Your task to perform on an android device: open app "ColorNote Notepad Notes" (install if not already installed) Image 0: 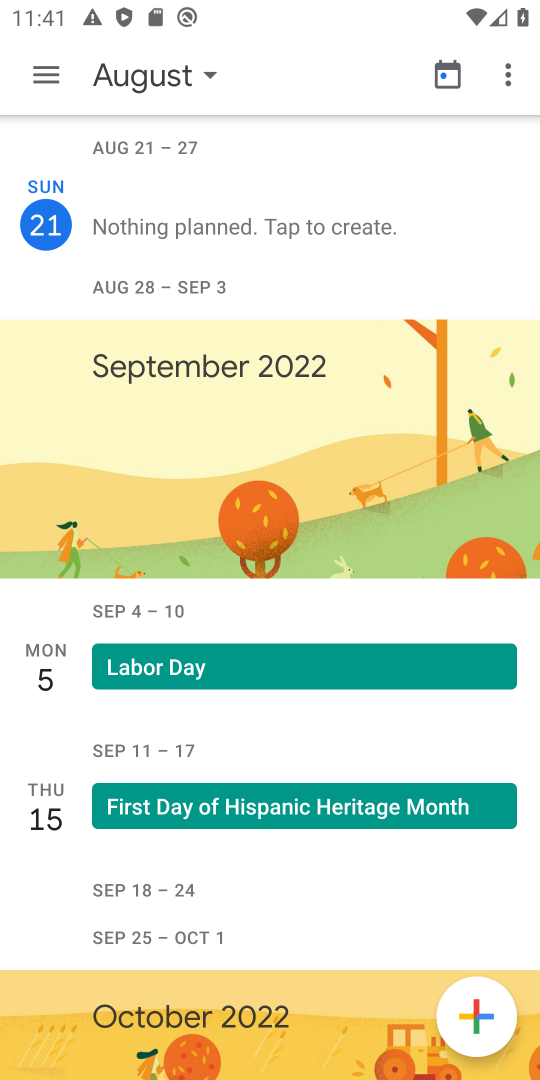
Step 0: press home button
Your task to perform on an android device: open app "ColorNote Notepad Notes" (install if not already installed) Image 1: 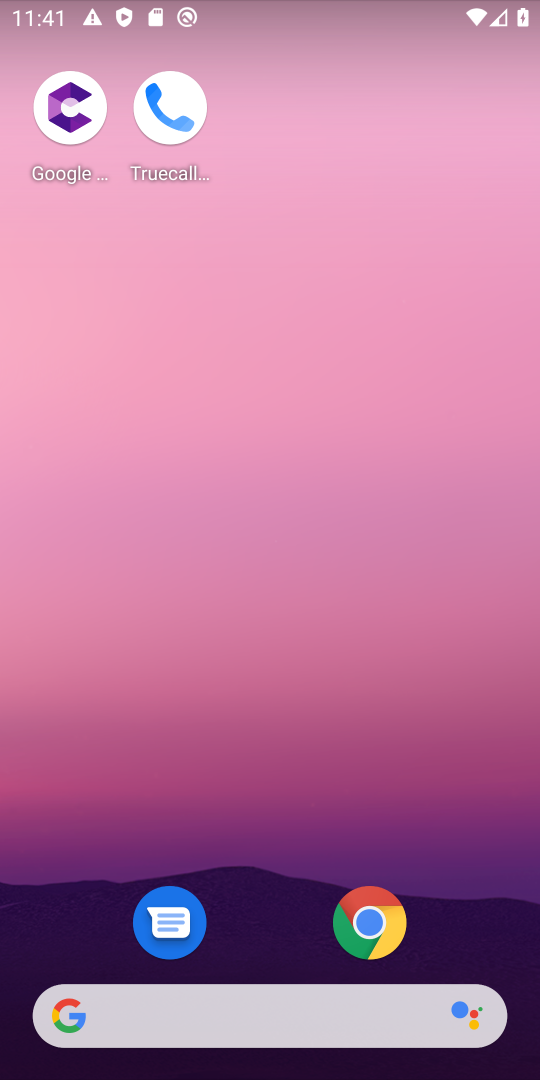
Step 1: drag from (263, 957) to (469, 15)
Your task to perform on an android device: open app "ColorNote Notepad Notes" (install if not already installed) Image 2: 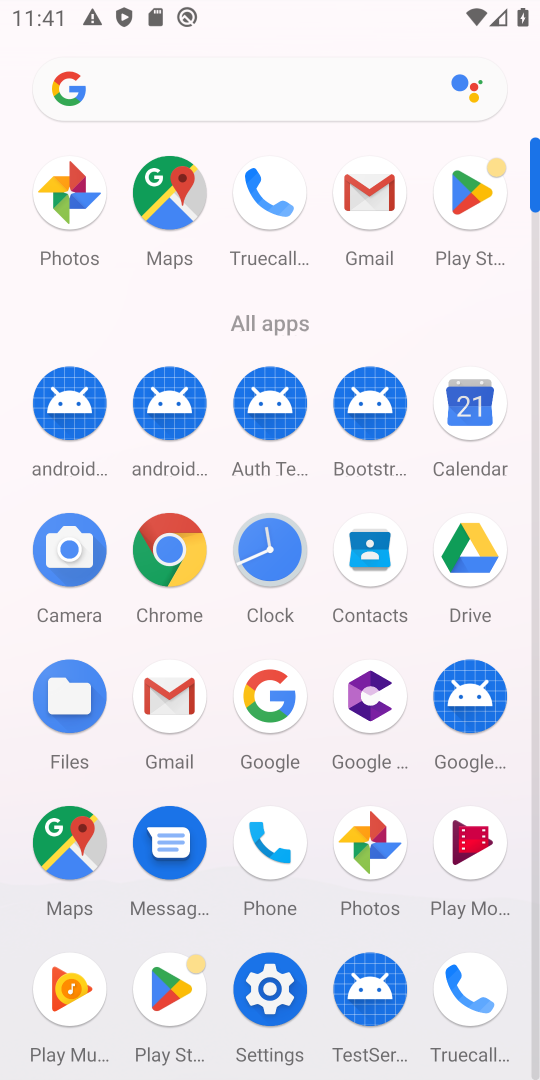
Step 2: click (152, 966)
Your task to perform on an android device: open app "ColorNote Notepad Notes" (install if not already installed) Image 3: 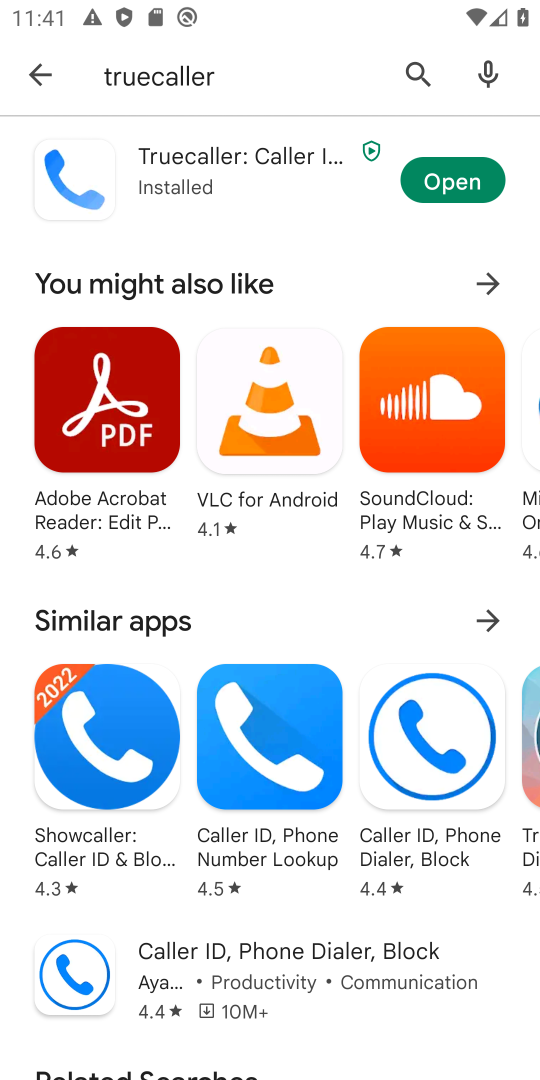
Step 3: click (35, 78)
Your task to perform on an android device: open app "ColorNote Notepad Notes" (install if not already installed) Image 4: 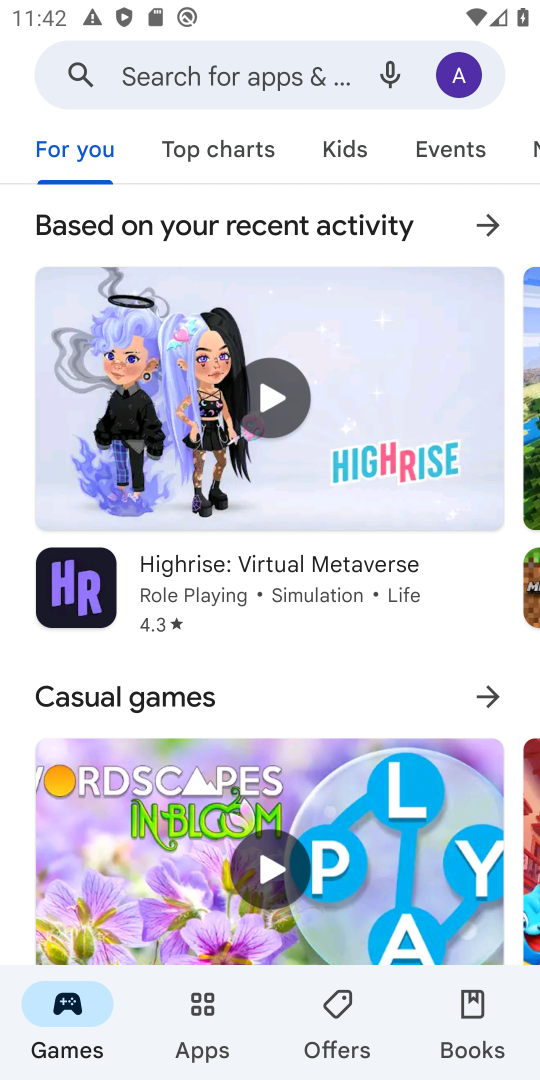
Step 4: click (179, 79)
Your task to perform on an android device: open app "ColorNote Notepad Notes" (install if not already installed) Image 5: 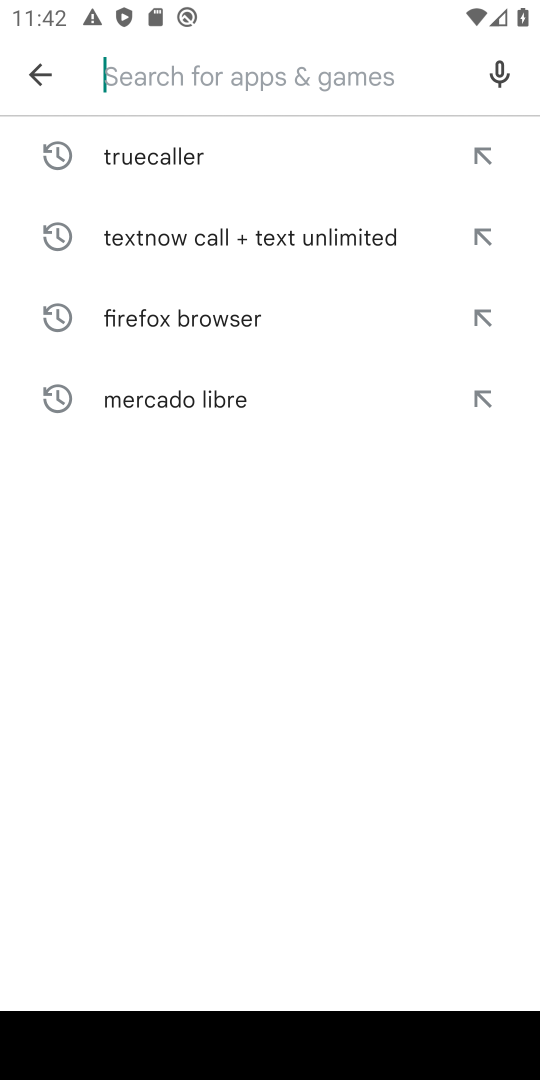
Step 5: type "ColorNote Notepad Notes"
Your task to perform on an android device: open app "ColorNote Notepad Notes" (install if not already installed) Image 6: 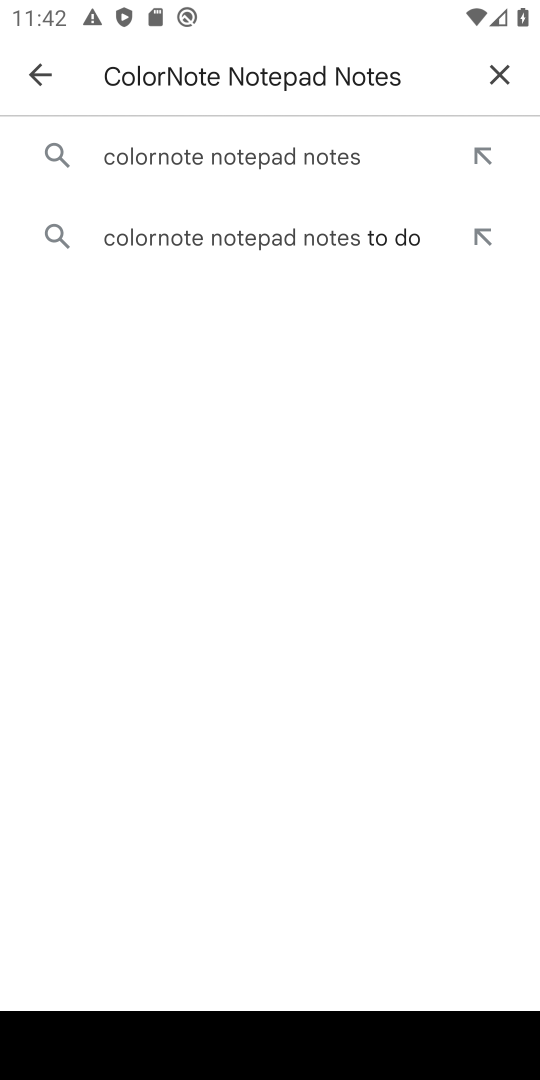
Step 6: click (282, 168)
Your task to perform on an android device: open app "ColorNote Notepad Notes" (install if not already installed) Image 7: 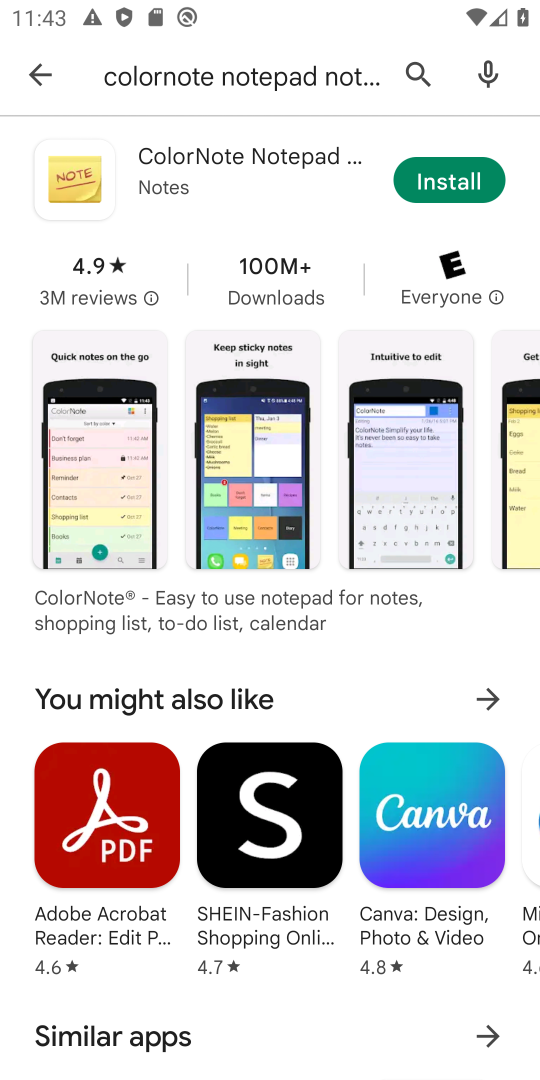
Step 7: click (474, 196)
Your task to perform on an android device: open app "ColorNote Notepad Notes" (install if not already installed) Image 8: 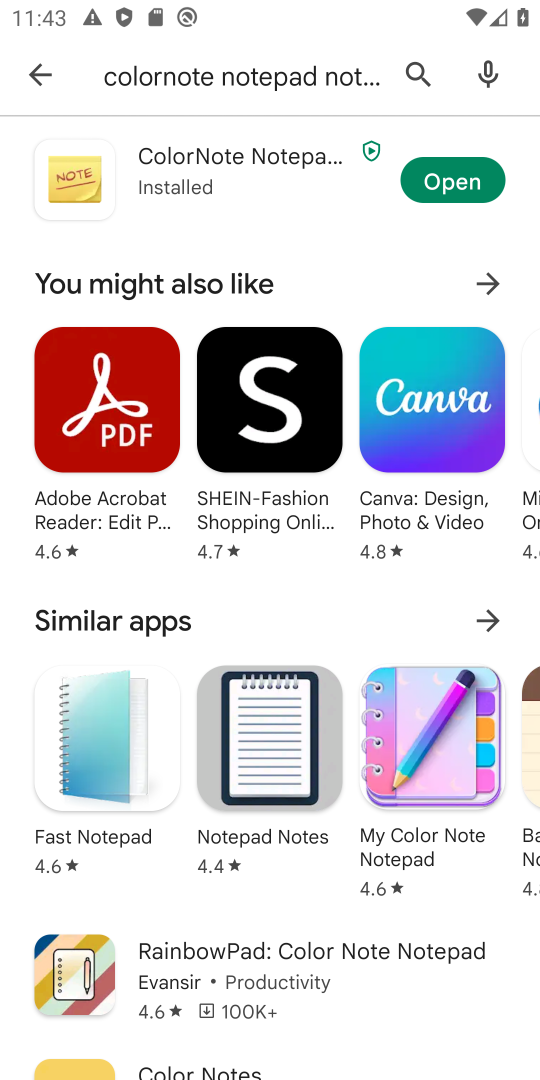
Step 8: click (474, 196)
Your task to perform on an android device: open app "ColorNote Notepad Notes" (install if not already installed) Image 9: 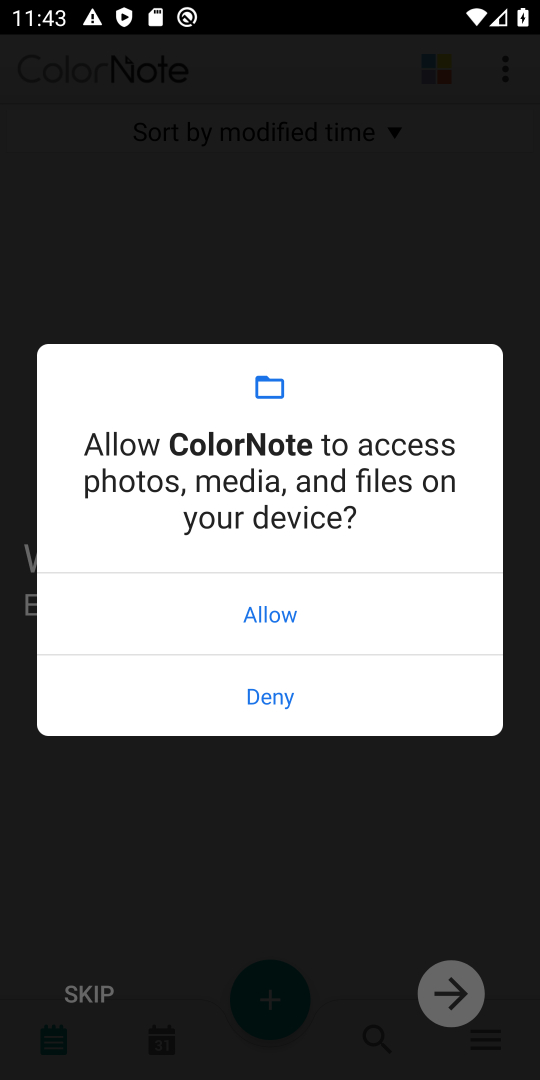
Step 9: task complete